Your task to perform on an android device: empty trash in google photos Image 0: 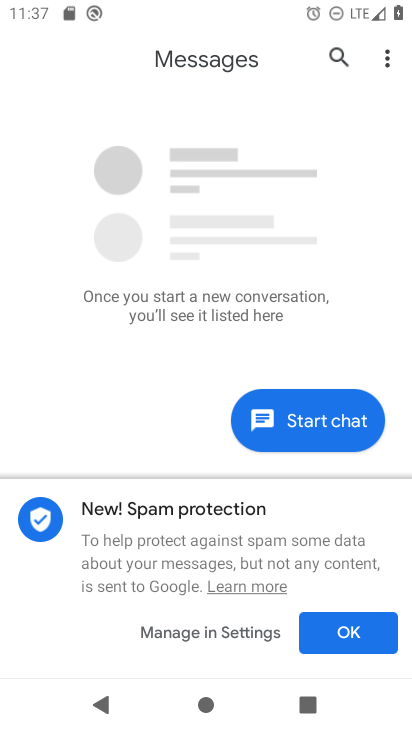
Step 0: press home button
Your task to perform on an android device: empty trash in google photos Image 1: 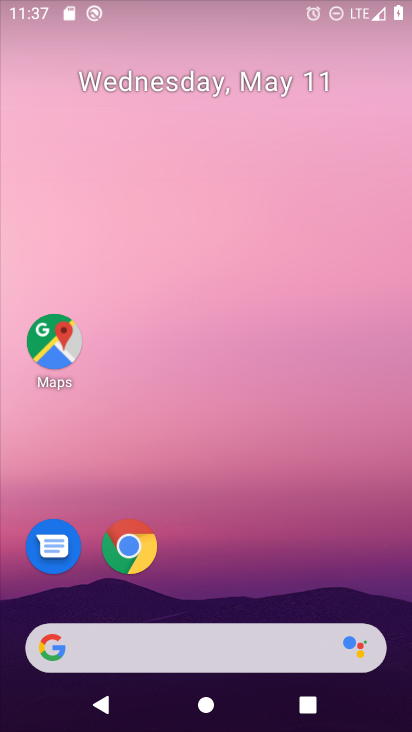
Step 1: drag from (380, 604) to (228, 36)
Your task to perform on an android device: empty trash in google photos Image 2: 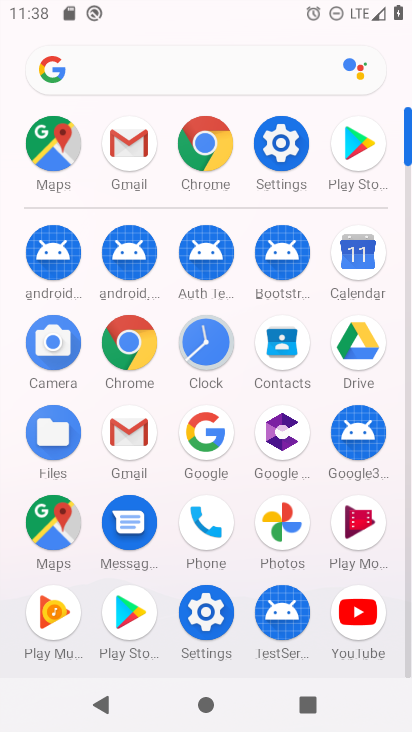
Step 2: click (309, 521)
Your task to perform on an android device: empty trash in google photos Image 3: 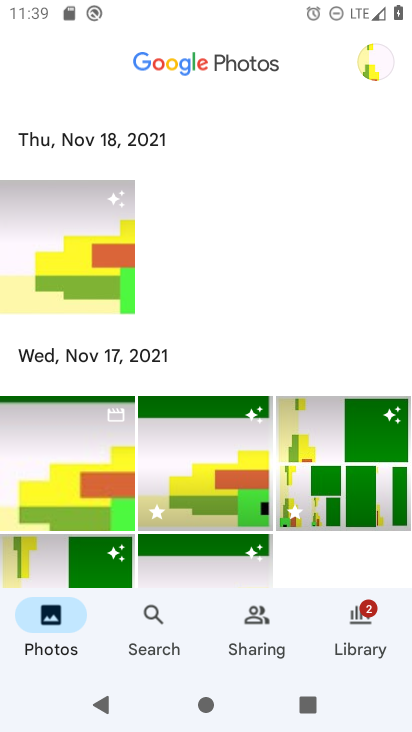
Step 3: click (359, 624)
Your task to perform on an android device: empty trash in google photos Image 4: 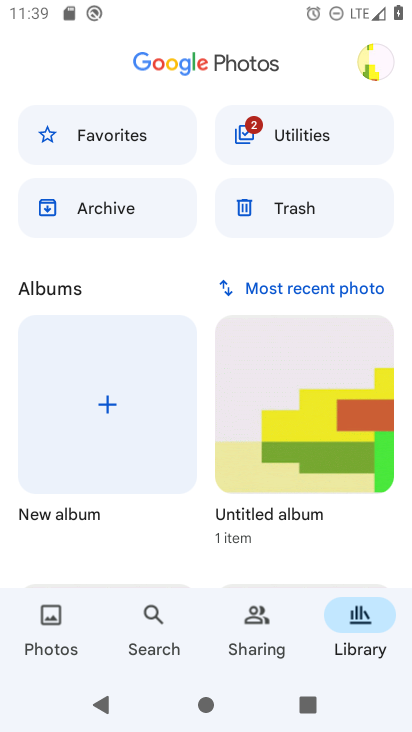
Step 4: click (312, 214)
Your task to perform on an android device: empty trash in google photos Image 5: 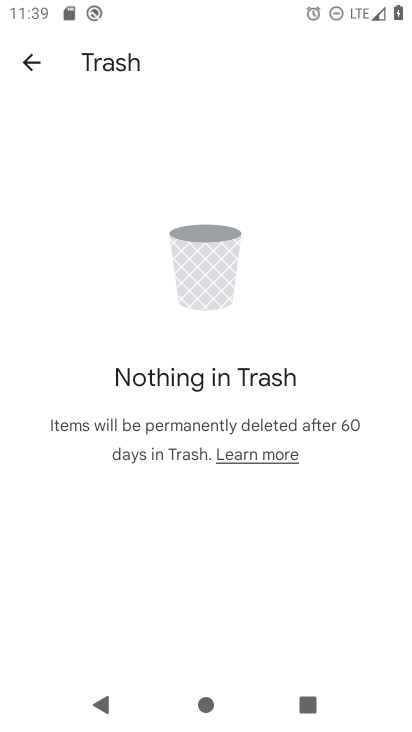
Step 5: task complete